Your task to perform on an android device: Open accessibility settings Image 0: 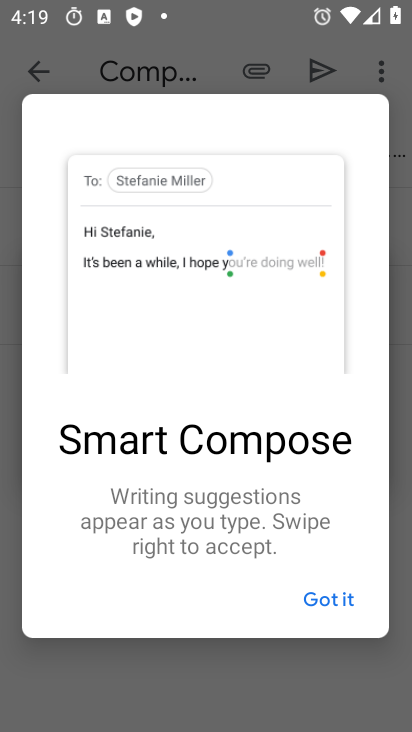
Step 0: press home button
Your task to perform on an android device: Open accessibility settings Image 1: 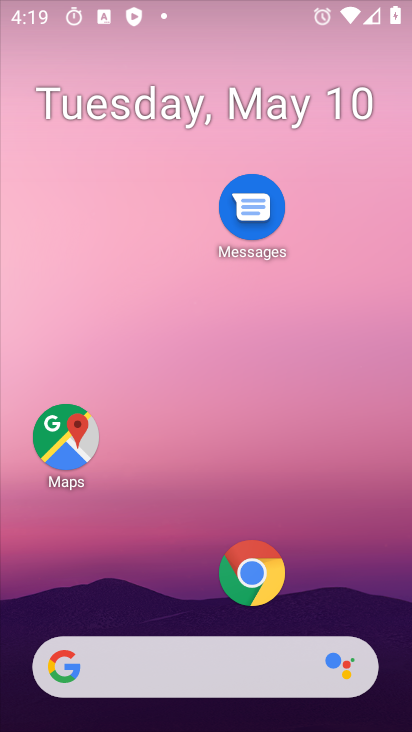
Step 1: drag from (182, 610) to (130, 156)
Your task to perform on an android device: Open accessibility settings Image 2: 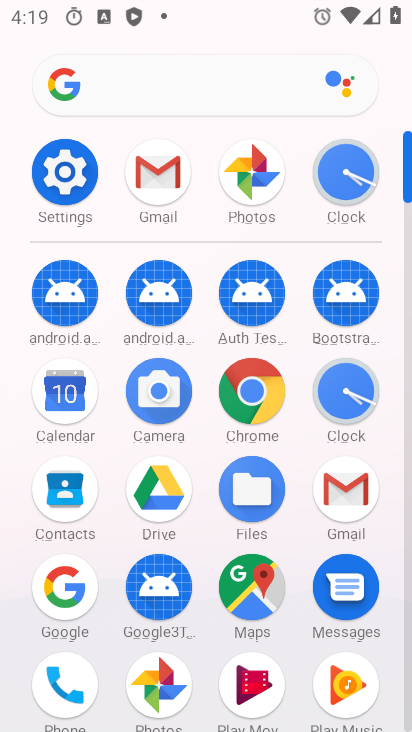
Step 2: click (81, 167)
Your task to perform on an android device: Open accessibility settings Image 3: 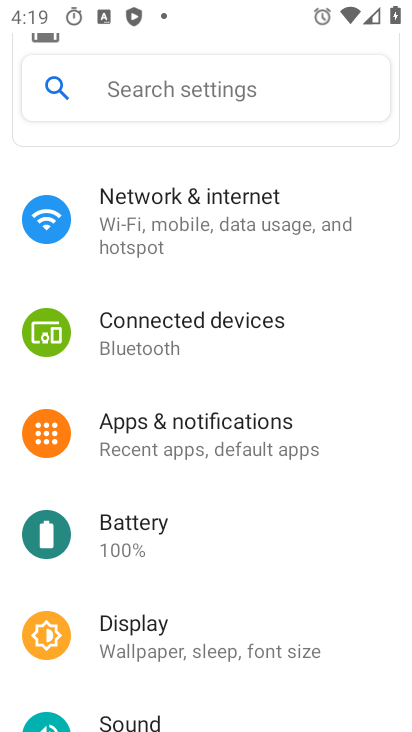
Step 3: drag from (182, 655) to (220, 291)
Your task to perform on an android device: Open accessibility settings Image 4: 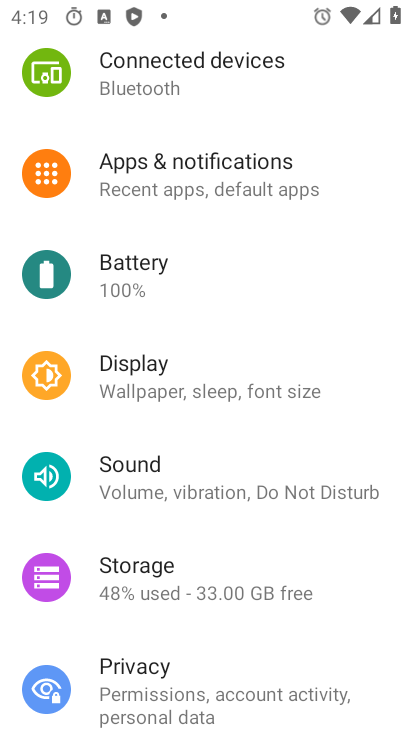
Step 4: drag from (224, 640) to (240, 301)
Your task to perform on an android device: Open accessibility settings Image 5: 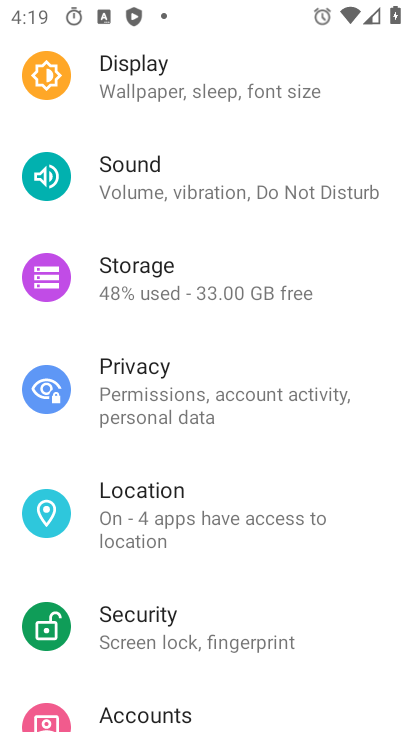
Step 5: drag from (182, 677) to (176, 334)
Your task to perform on an android device: Open accessibility settings Image 6: 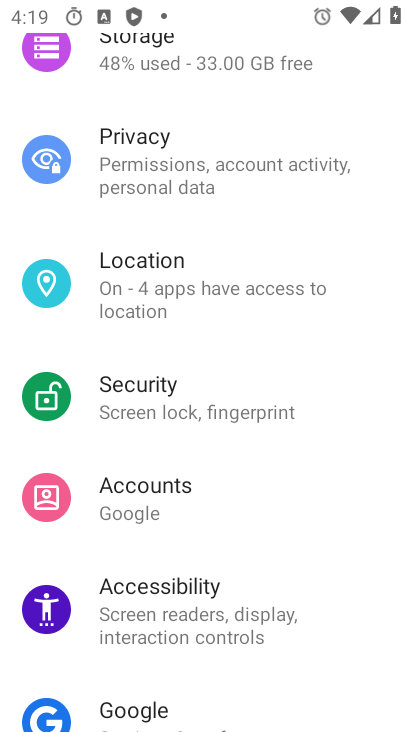
Step 6: click (195, 612)
Your task to perform on an android device: Open accessibility settings Image 7: 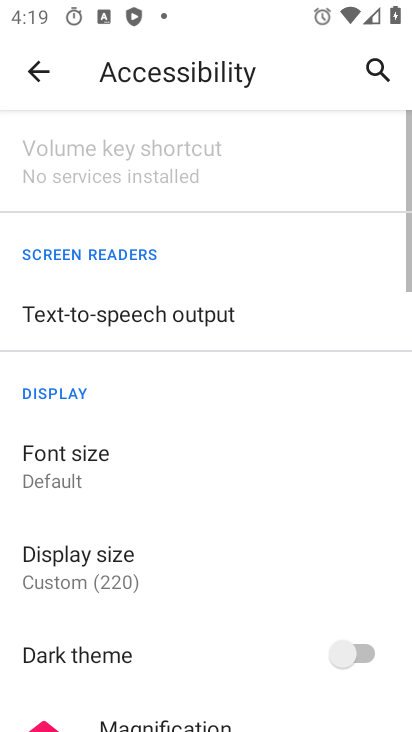
Step 7: task complete